Your task to perform on an android device: Go to location settings Image 0: 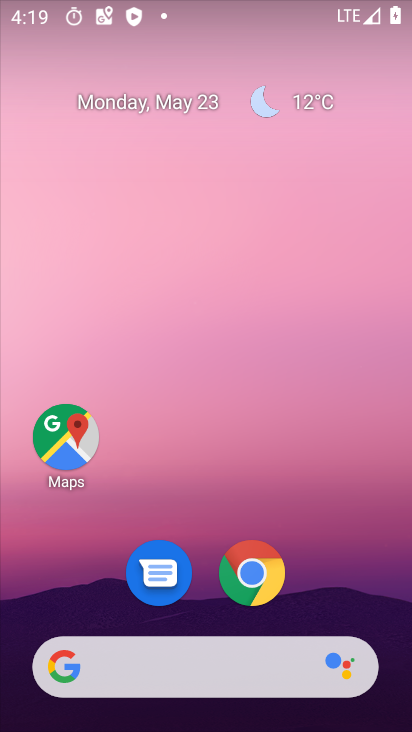
Step 0: drag from (43, 520) to (197, 133)
Your task to perform on an android device: Go to location settings Image 1: 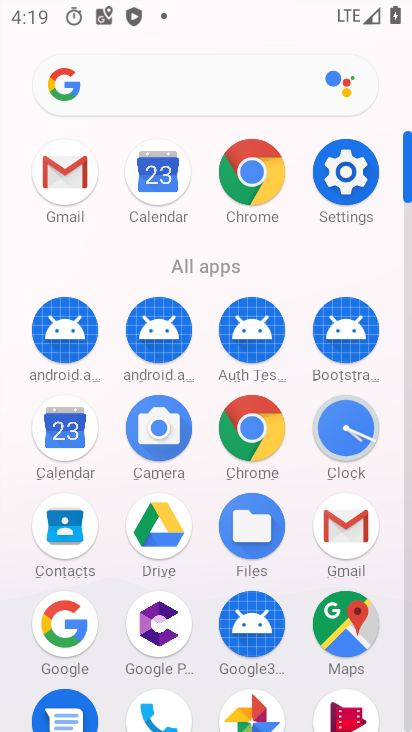
Step 1: click (362, 187)
Your task to perform on an android device: Go to location settings Image 2: 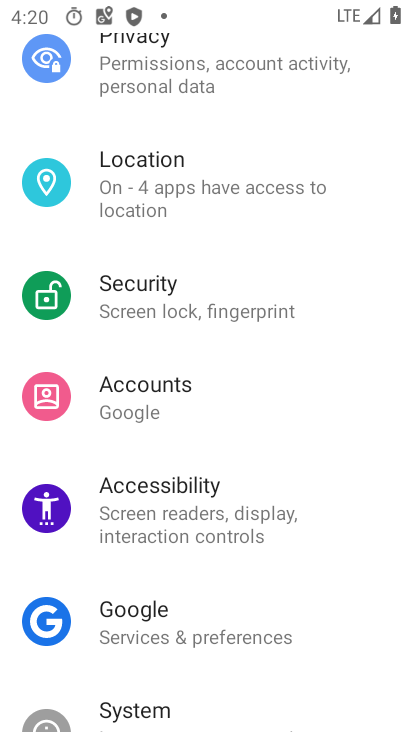
Step 2: click (179, 171)
Your task to perform on an android device: Go to location settings Image 3: 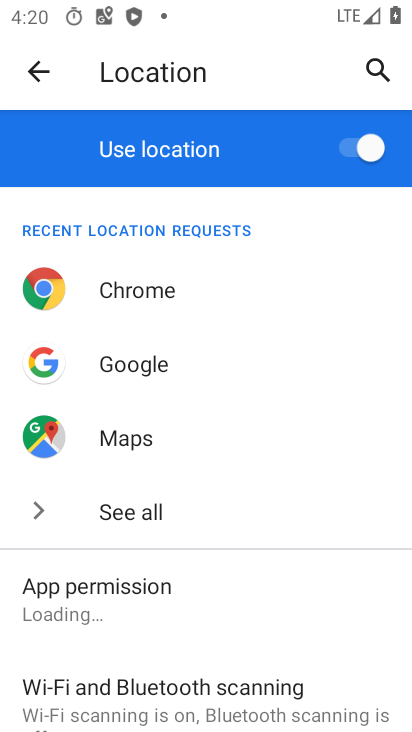
Step 3: task complete